Your task to perform on an android device: Go to Maps Image 0: 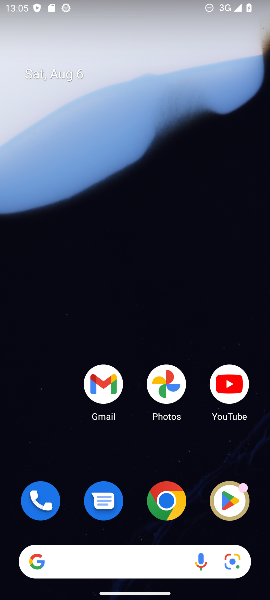
Step 0: click (111, 512)
Your task to perform on an android device: Go to Maps Image 1: 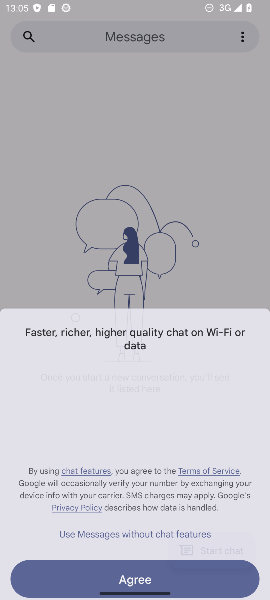
Step 1: press home button
Your task to perform on an android device: Go to Maps Image 2: 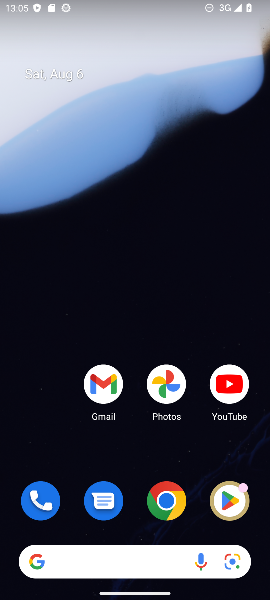
Step 2: drag from (131, 499) to (158, 45)
Your task to perform on an android device: Go to Maps Image 3: 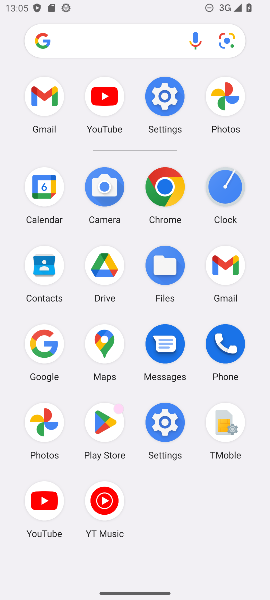
Step 3: click (100, 349)
Your task to perform on an android device: Go to Maps Image 4: 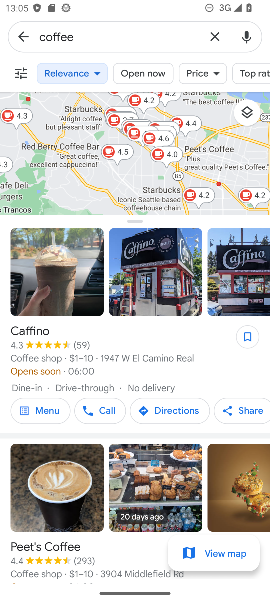
Step 4: task complete